Your task to perform on an android device: Open Youtube and go to "Your channel" Image 0: 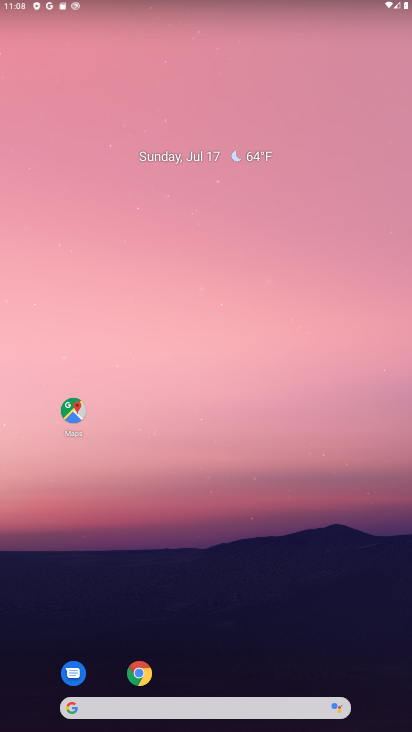
Step 0: drag from (202, 668) to (246, 187)
Your task to perform on an android device: Open Youtube and go to "Your channel" Image 1: 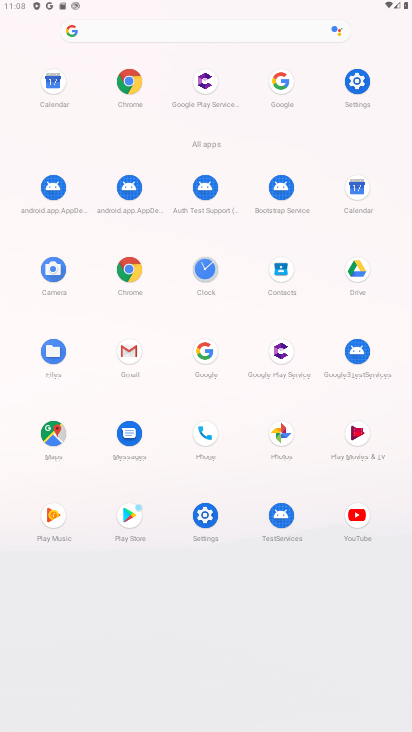
Step 1: click (363, 513)
Your task to perform on an android device: Open Youtube and go to "Your channel" Image 2: 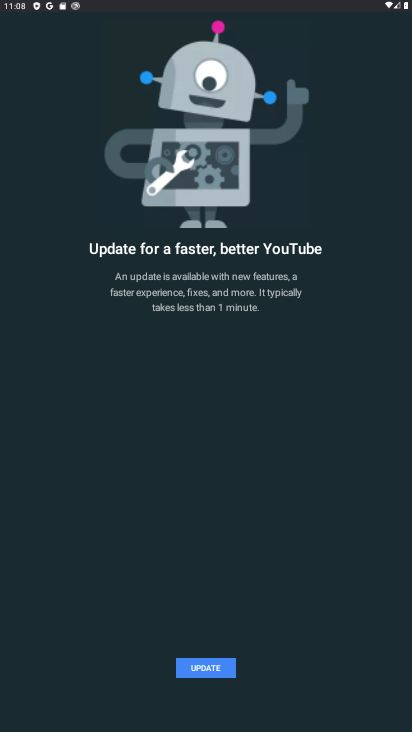
Step 2: click (191, 665)
Your task to perform on an android device: Open Youtube and go to "Your channel" Image 3: 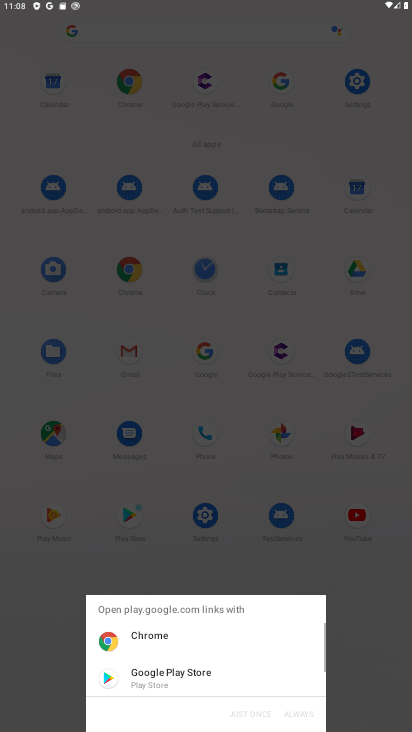
Step 3: click (159, 679)
Your task to perform on an android device: Open Youtube and go to "Your channel" Image 4: 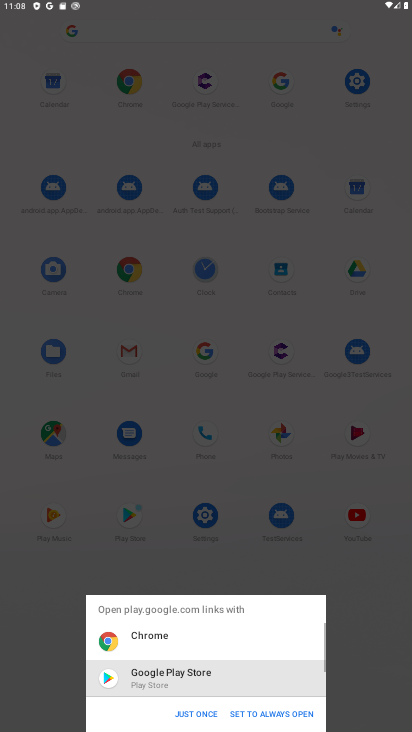
Step 4: click (192, 701)
Your task to perform on an android device: Open Youtube and go to "Your channel" Image 5: 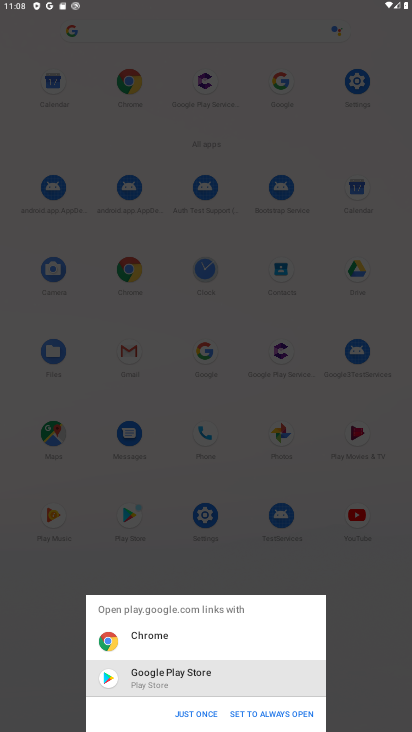
Step 5: click (202, 709)
Your task to perform on an android device: Open Youtube and go to "Your channel" Image 6: 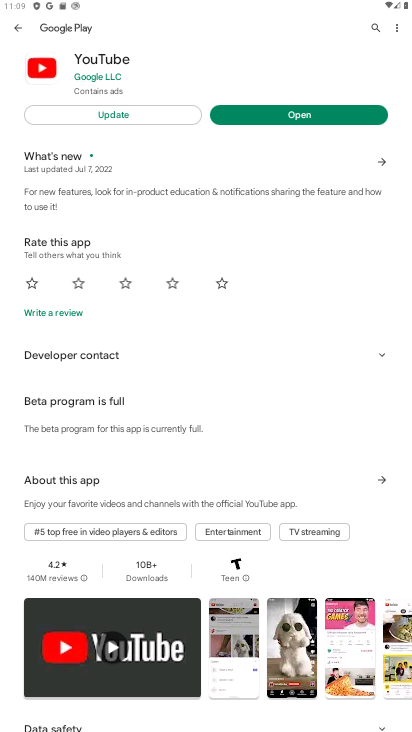
Step 6: click (141, 108)
Your task to perform on an android device: Open Youtube and go to "Your channel" Image 7: 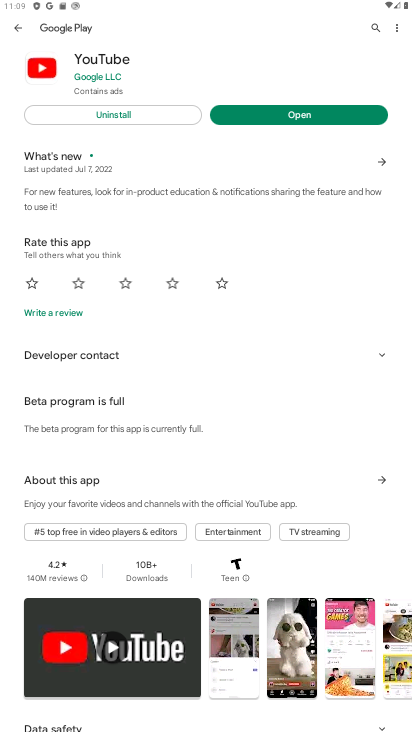
Step 7: click (256, 121)
Your task to perform on an android device: Open Youtube and go to "Your channel" Image 8: 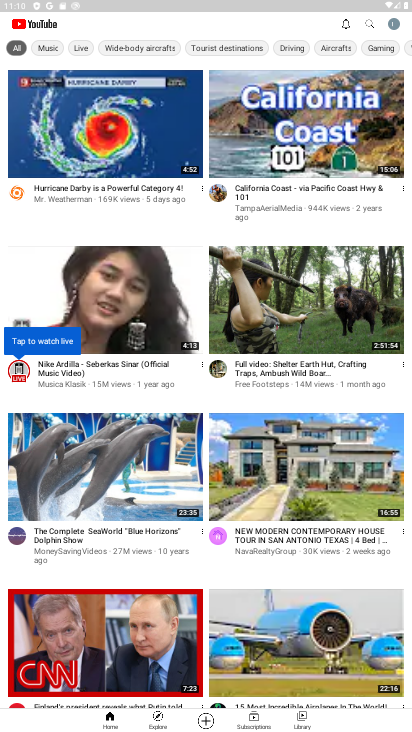
Step 8: click (393, 29)
Your task to perform on an android device: Open Youtube and go to "Your channel" Image 9: 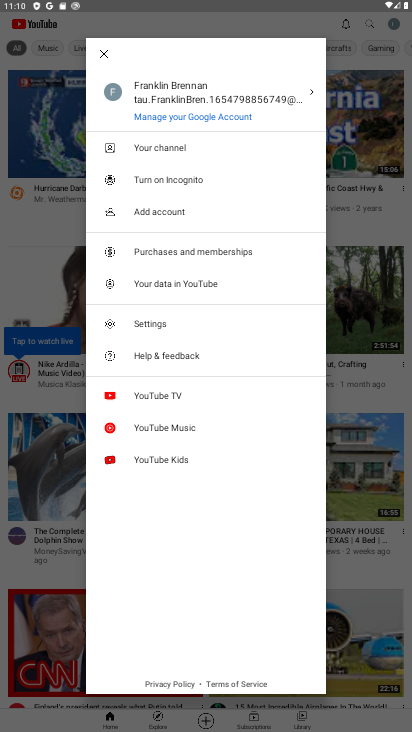
Step 9: click (184, 153)
Your task to perform on an android device: Open Youtube and go to "Your channel" Image 10: 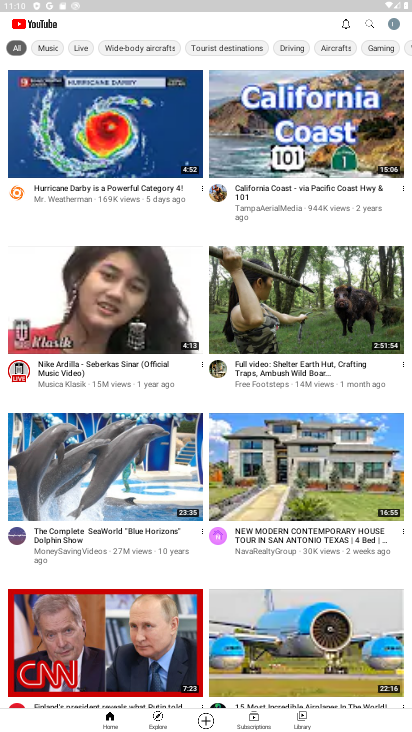
Step 10: task complete